Your task to perform on an android device: What's the weather? Image 0: 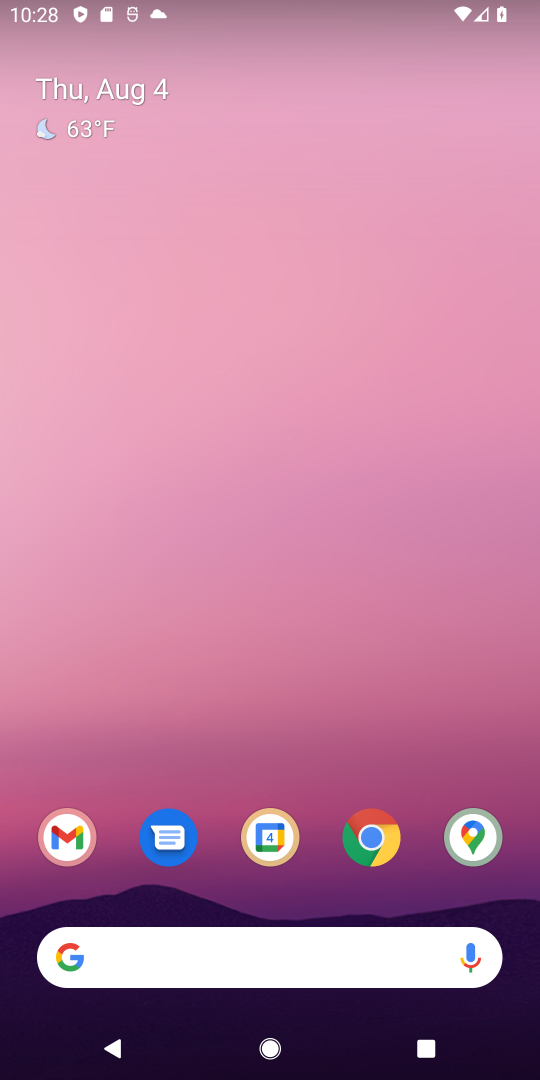
Step 0: press home button
Your task to perform on an android device: What's the weather? Image 1: 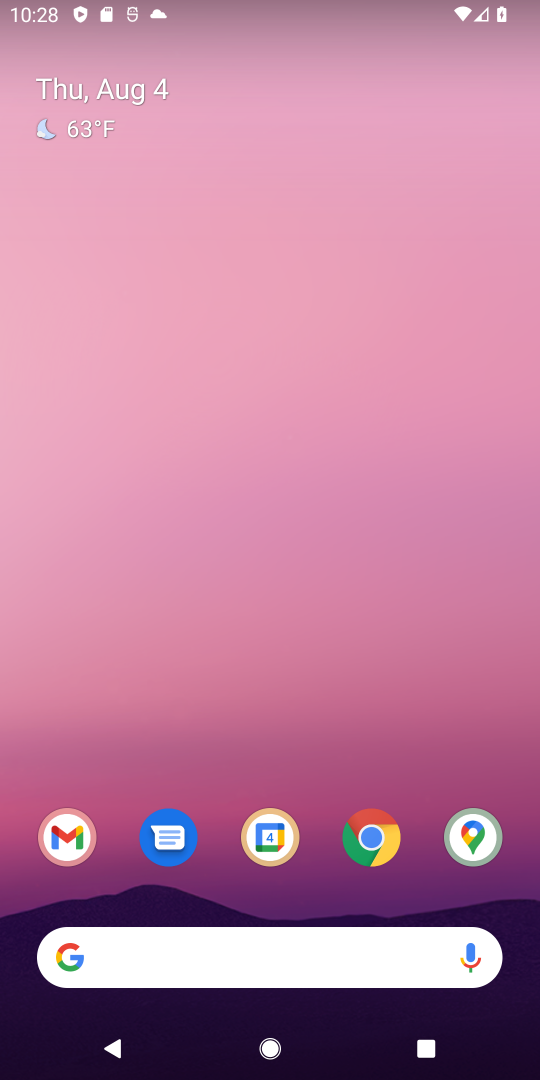
Step 1: click (238, 951)
Your task to perform on an android device: What's the weather? Image 2: 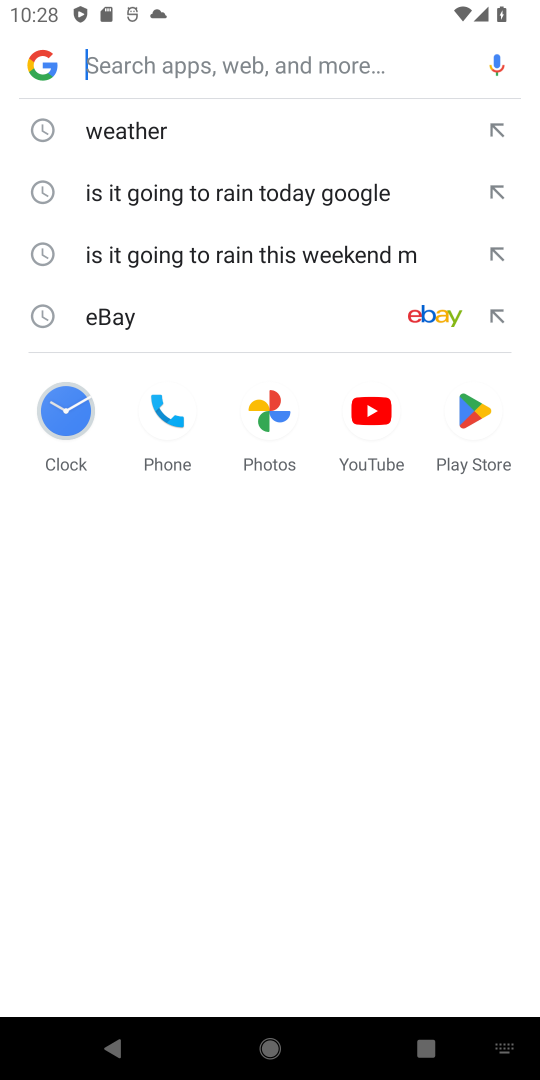
Step 2: click (179, 128)
Your task to perform on an android device: What's the weather? Image 3: 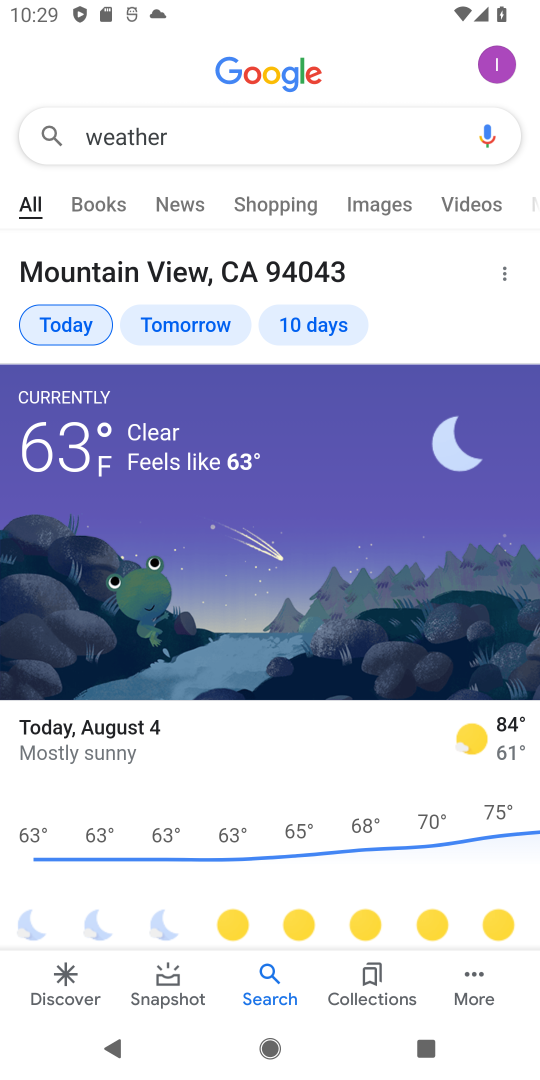
Step 3: task complete